Your task to perform on an android device: Go to CNN.com Image 0: 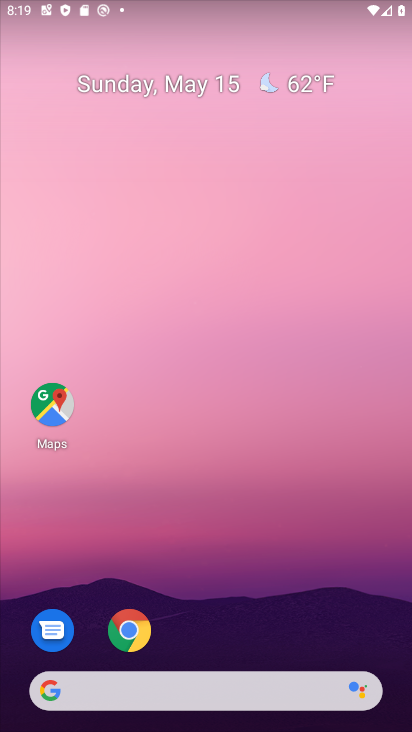
Step 0: click (132, 625)
Your task to perform on an android device: Go to CNN.com Image 1: 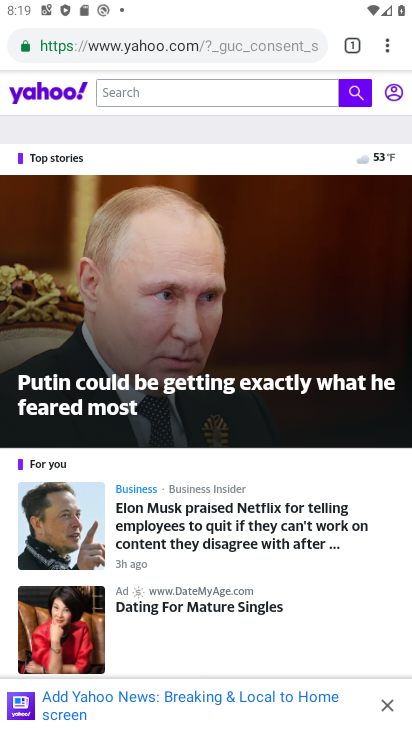
Step 1: click (220, 49)
Your task to perform on an android device: Go to CNN.com Image 2: 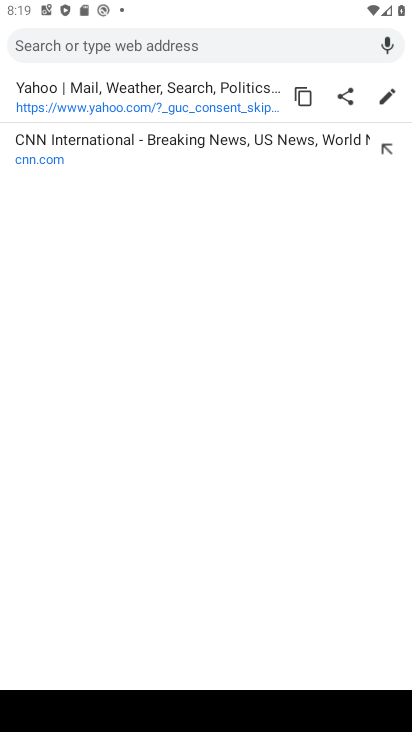
Step 2: type "CNN.com"
Your task to perform on an android device: Go to CNN.com Image 3: 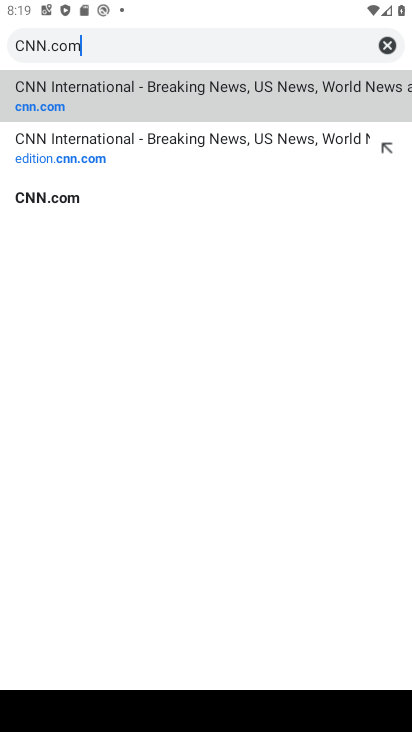
Step 3: click (66, 206)
Your task to perform on an android device: Go to CNN.com Image 4: 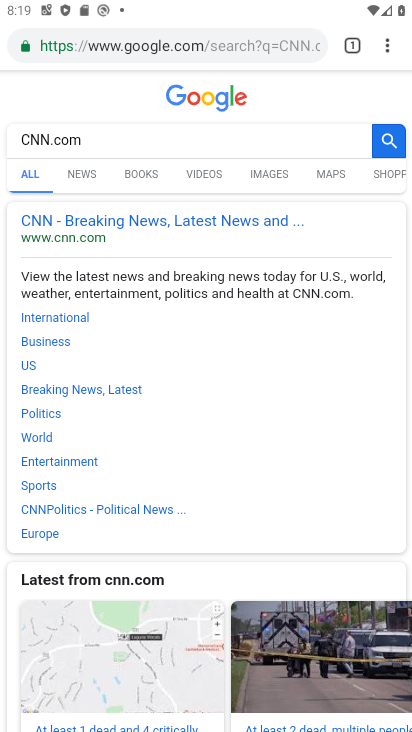
Step 4: task complete